Your task to perform on an android device: Go to wifi settings Image 0: 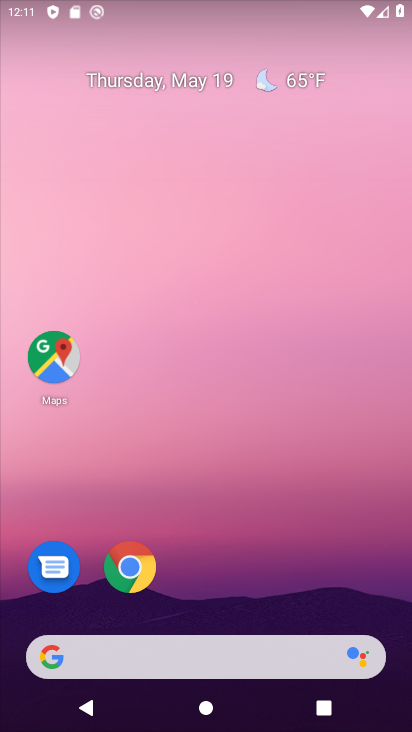
Step 0: drag from (262, 563) to (219, 95)
Your task to perform on an android device: Go to wifi settings Image 1: 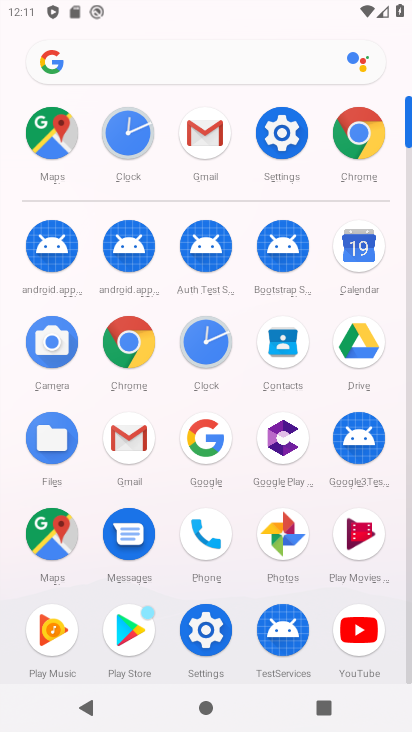
Step 1: click (284, 142)
Your task to perform on an android device: Go to wifi settings Image 2: 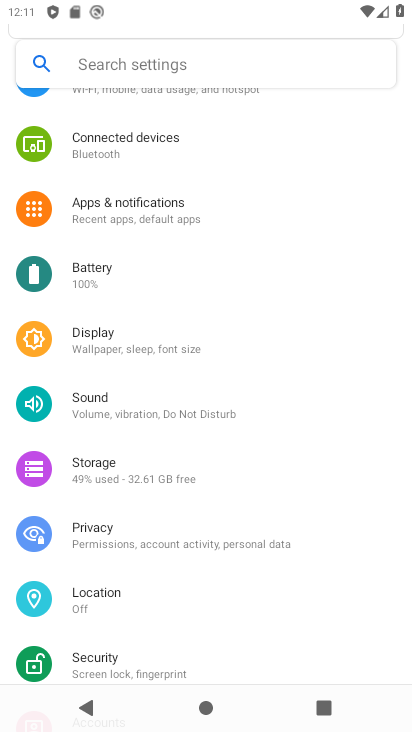
Step 2: drag from (256, 232) to (261, 484)
Your task to perform on an android device: Go to wifi settings Image 3: 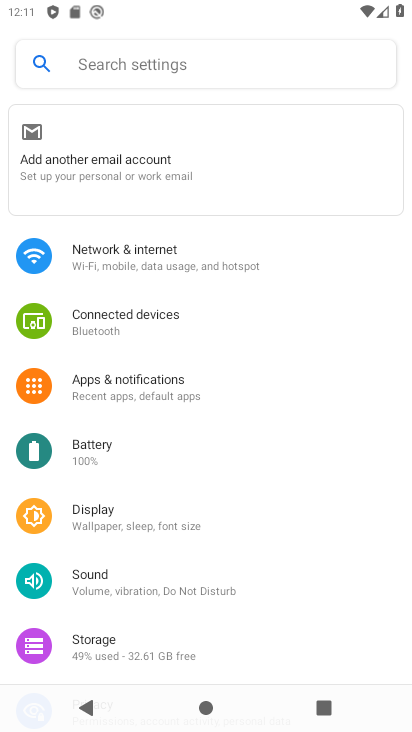
Step 3: click (205, 251)
Your task to perform on an android device: Go to wifi settings Image 4: 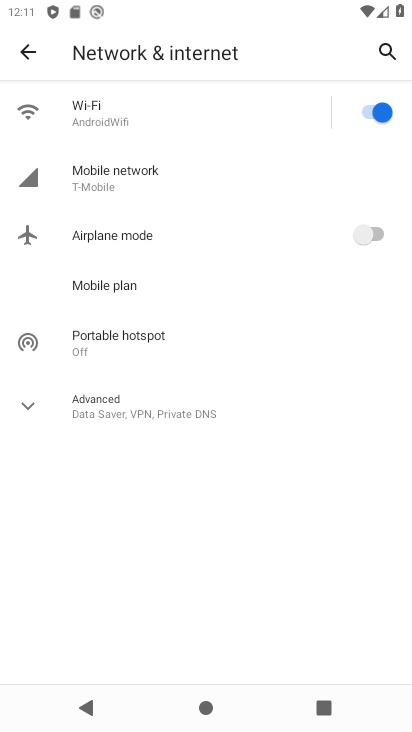
Step 4: click (159, 114)
Your task to perform on an android device: Go to wifi settings Image 5: 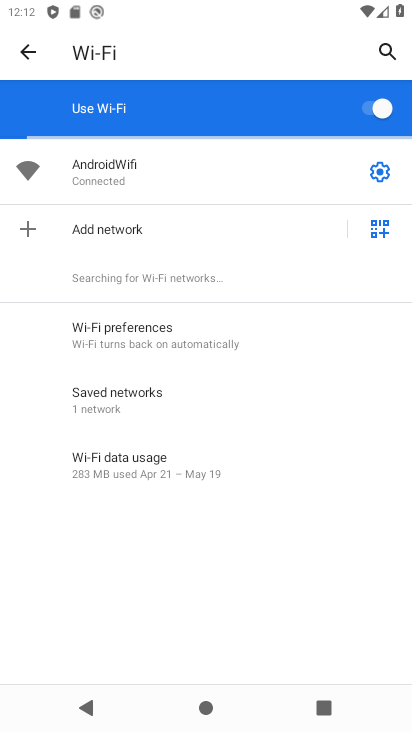
Step 5: task complete